Your task to perform on an android device: Search for sushi restaurants on Maps Image 0: 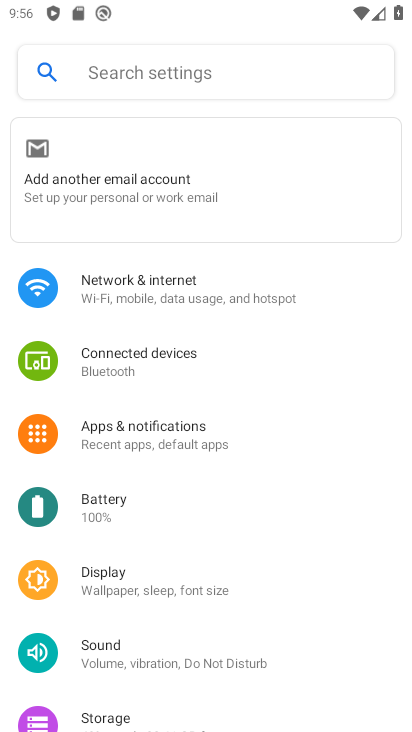
Step 0: press home button
Your task to perform on an android device: Search for sushi restaurants on Maps Image 1: 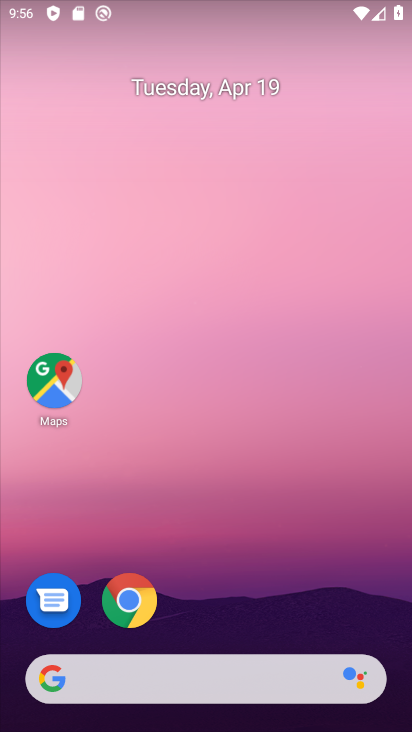
Step 1: drag from (309, 616) to (248, 55)
Your task to perform on an android device: Search for sushi restaurants on Maps Image 2: 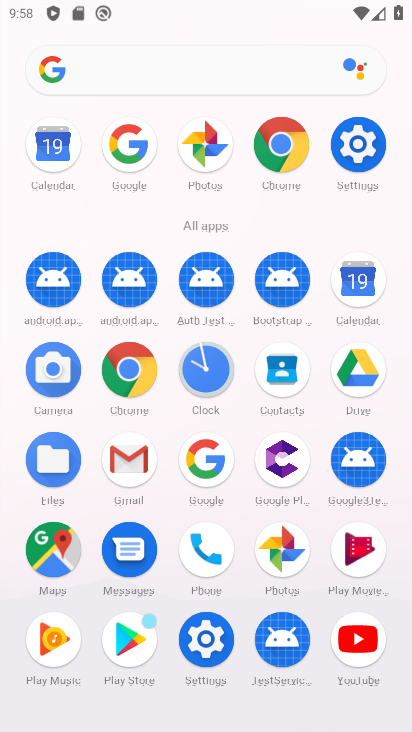
Step 2: click (39, 548)
Your task to perform on an android device: Search for sushi restaurants on Maps Image 3: 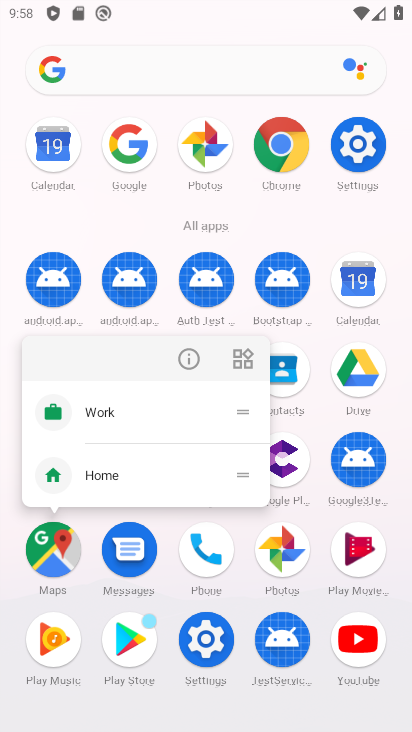
Step 3: click (39, 548)
Your task to perform on an android device: Search for sushi restaurants on Maps Image 4: 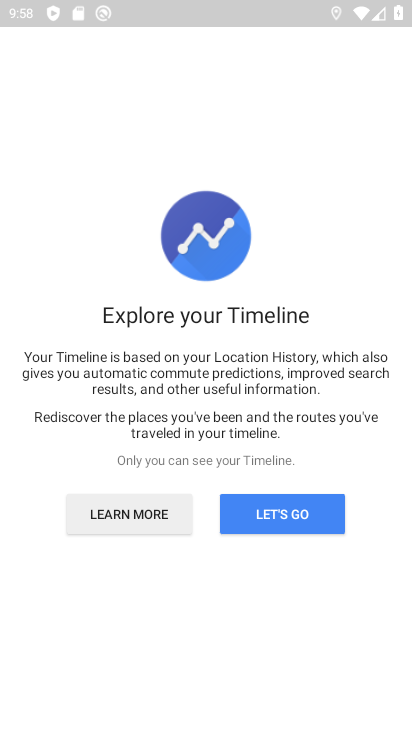
Step 4: press back button
Your task to perform on an android device: Search for sushi restaurants on Maps Image 5: 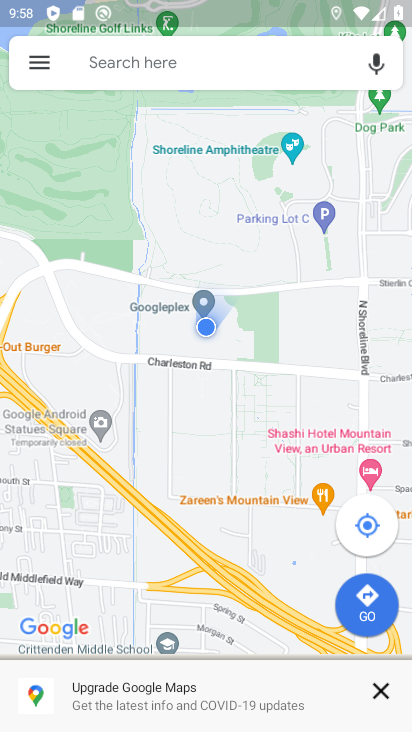
Step 5: click (200, 62)
Your task to perform on an android device: Search for sushi restaurants on Maps Image 6: 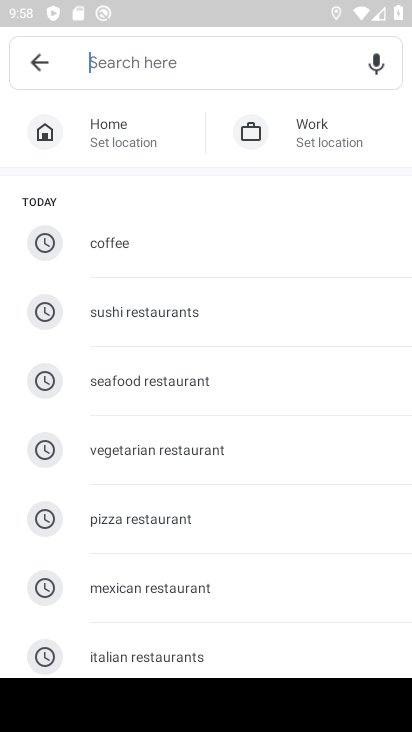
Step 6: click (202, 313)
Your task to perform on an android device: Search for sushi restaurants on Maps Image 7: 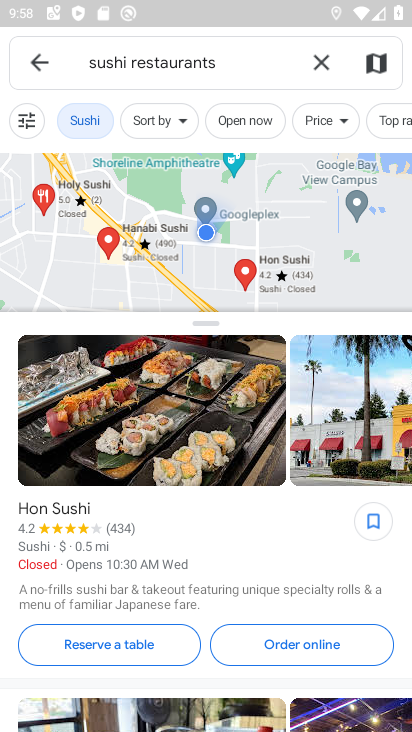
Step 7: task complete